Your task to perform on an android device: Do I have any events this weekend? Image 0: 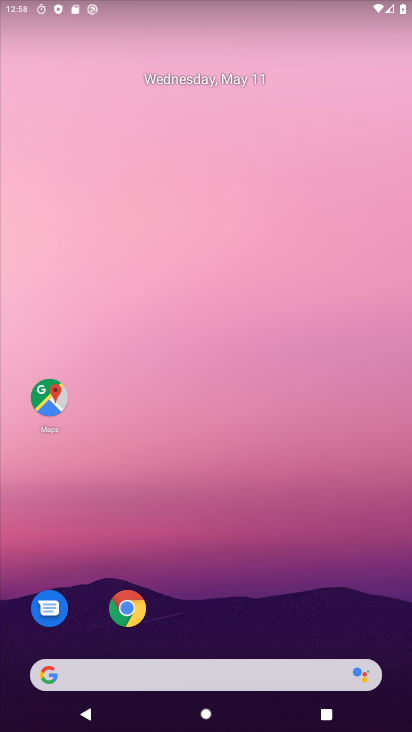
Step 0: drag from (268, 515) to (268, 98)
Your task to perform on an android device: Do I have any events this weekend? Image 1: 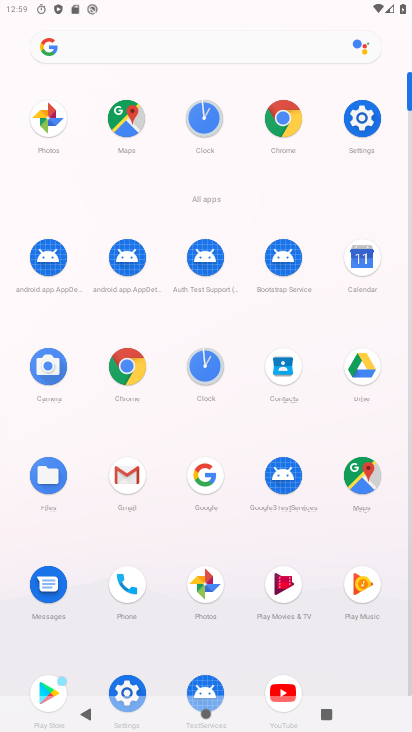
Step 1: click (372, 274)
Your task to perform on an android device: Do I have any events this weekend? Image 2: 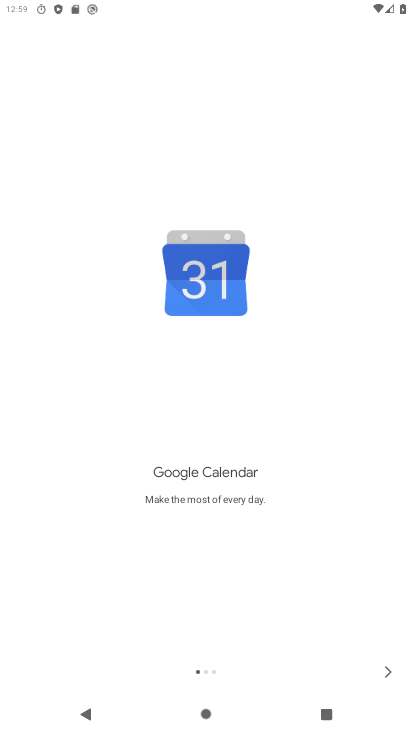
Step 2: click (391, 673)
Your task to perform on an android device: Do I have any events this weekend? Image 3: 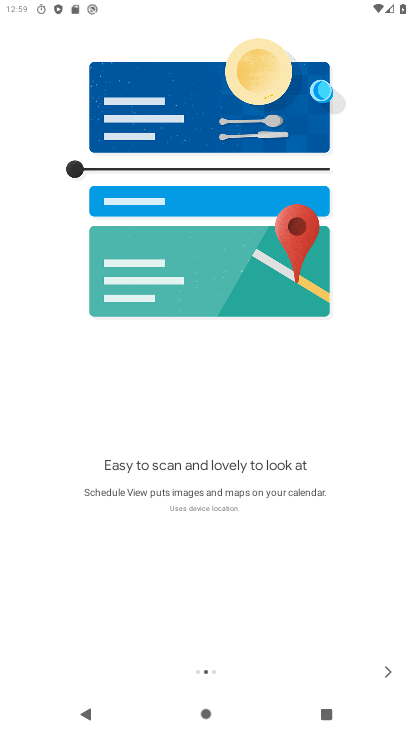
Step 3: click (391, 672)
Your task to perform on an android device: Do I have any events this weekend? Image 4: 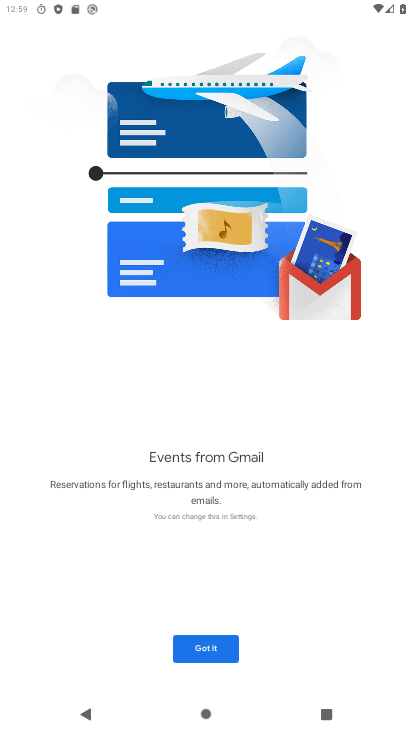
Step 4: click (228, 642)
Your task to perform on an android device: Do I have any events this weekend? Image 5: 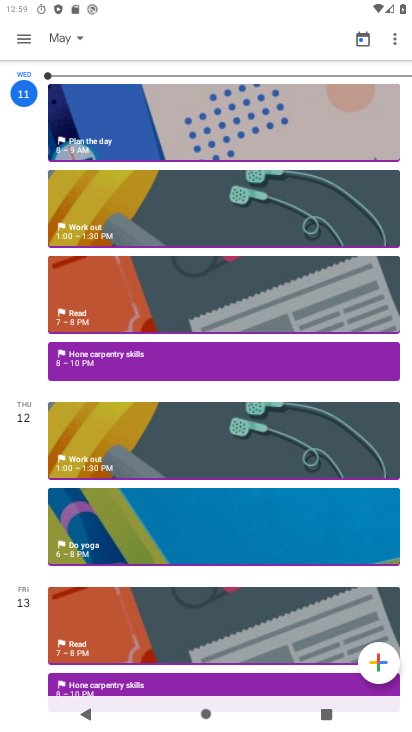
Step 5: click (28, 40)
Your task to perform on an android device: Do I have any events this weekend? Image 6: 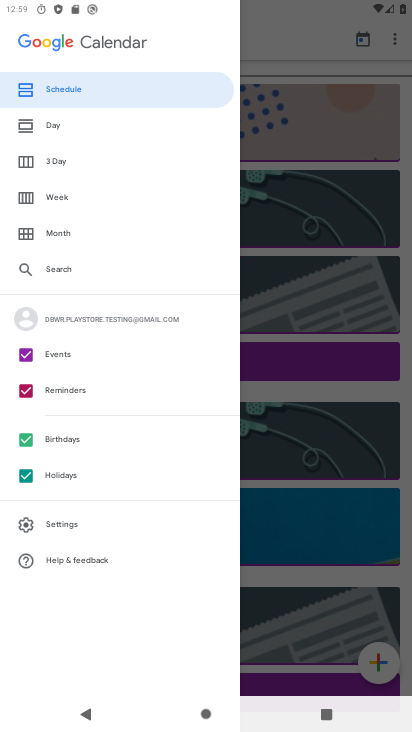
Step 6: click (67, 198)
Your task to perform on an android device: Do I have any events this weekend? Image 7: 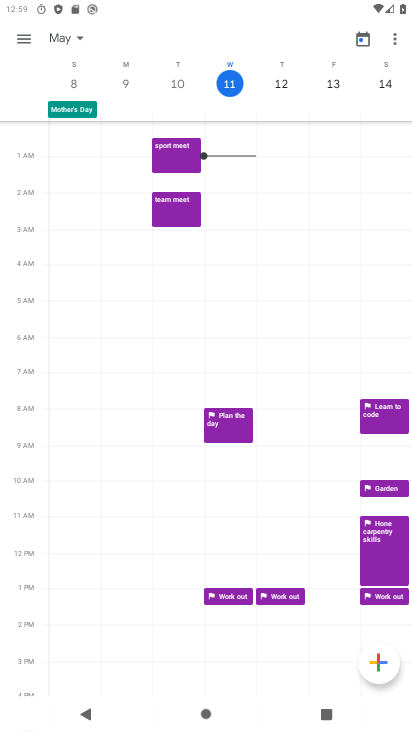
Step 7: click (62, 38)
Your task to perform on an android device: Do I have any events this weekend? Image 8: 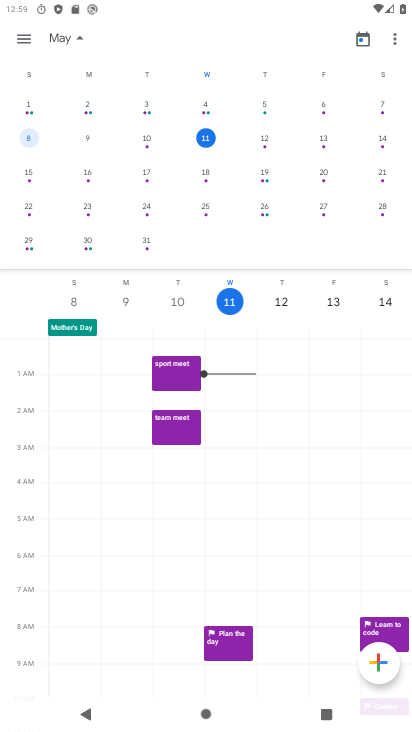
Step 8: click (30, 110)
Your task to perform on an android device: Do I have any events this weekend? Image 9: 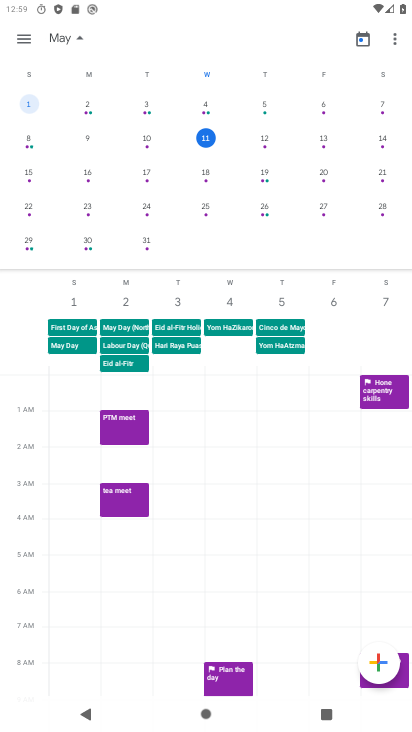
Step 9: click (32, 146)
Your task to perform on an android device: Do I have any events this weekend? Image 10: 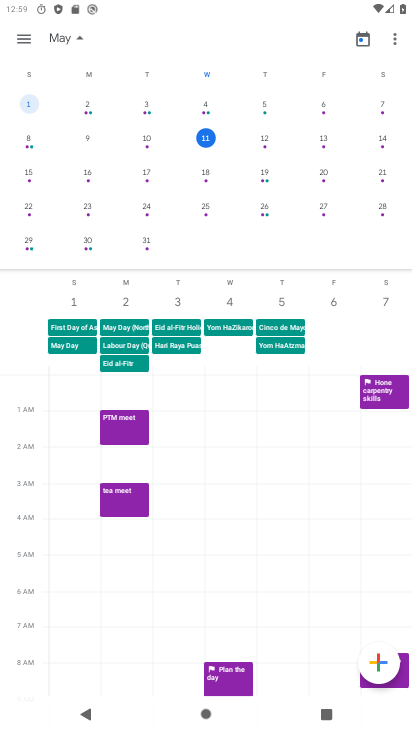
Step 10: click (27, 138)
Your task to perform on an android device: Do I have any events this weekend? Image 11: 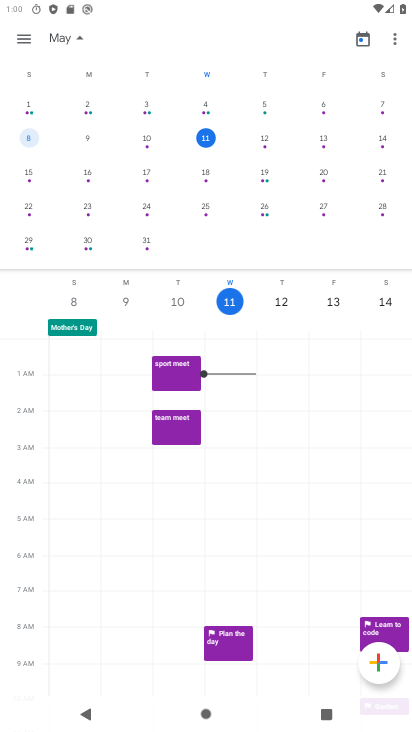
Step 11: task complete